Your task to perform on an android device: Do I have any events this weekend? Image 0: 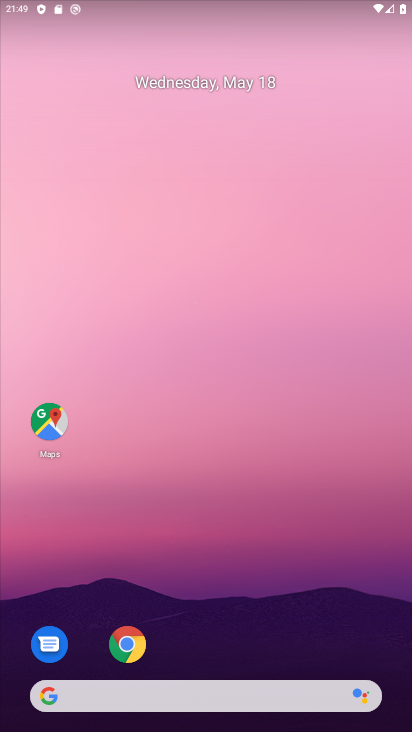
Step 0: drag from (300, 620) to (270, 145)
Your task to perform on an android device: Do I have any events this weekend? Image 1: 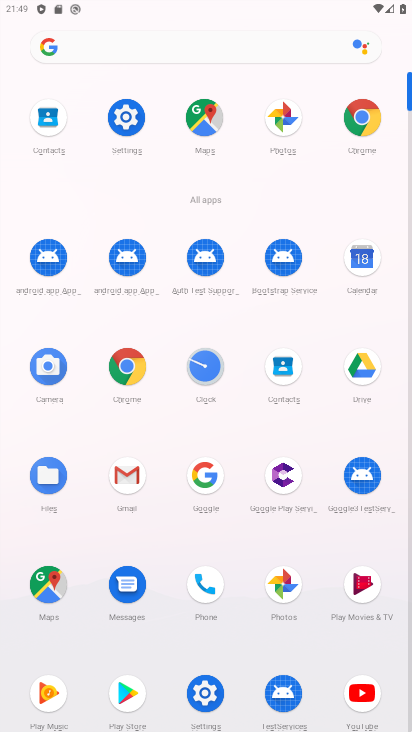
Step 1: click (144, 115)
Your task to perform on an android device: Do I have any events this weekend? Image 2: 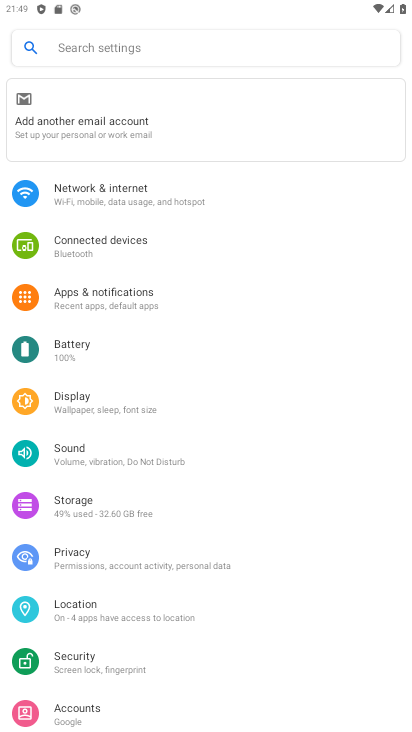
Step 2: press home button
Your task to perform on an android device: Do I have any events this weekend? Image 3: 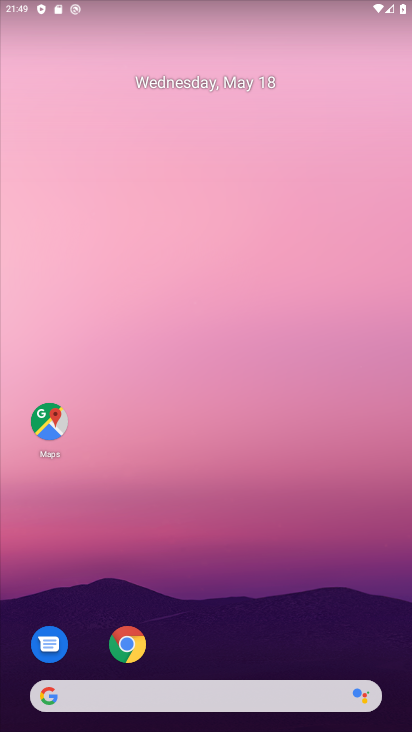
Step 3: drag from (311, 569) to (278, 101)
Your task to perform on an android device: Do I have any events this weekend? Image 4: 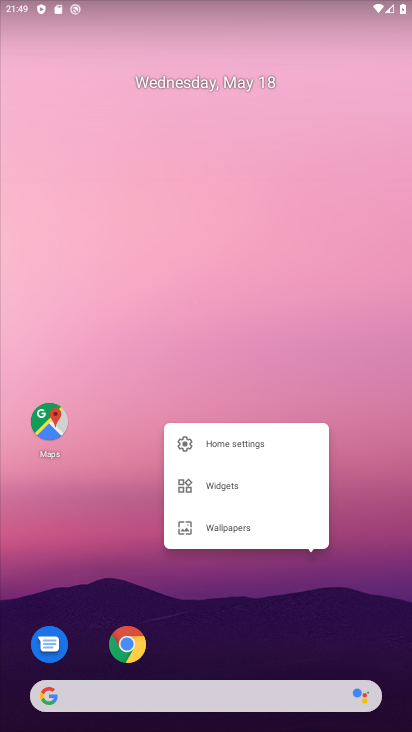
Step 4: click (335, 578)
Your task to perform on an android device: Do I have any events this weekend? Image 5: 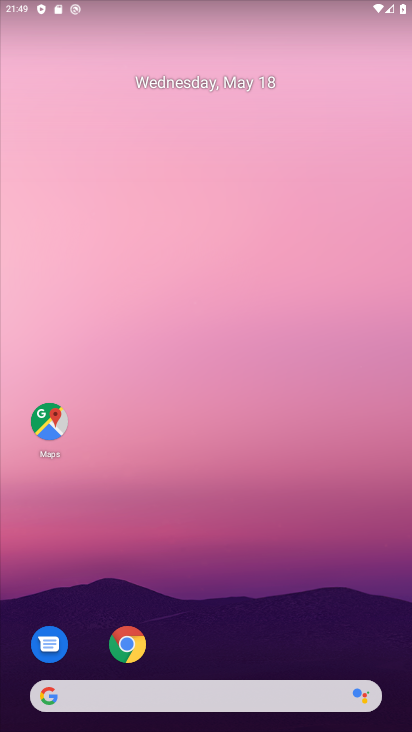
Step 5: drag from (352, 592) to (359, 92)
Your task to perform on an android device: Do I have any events this weekend? Image 6: 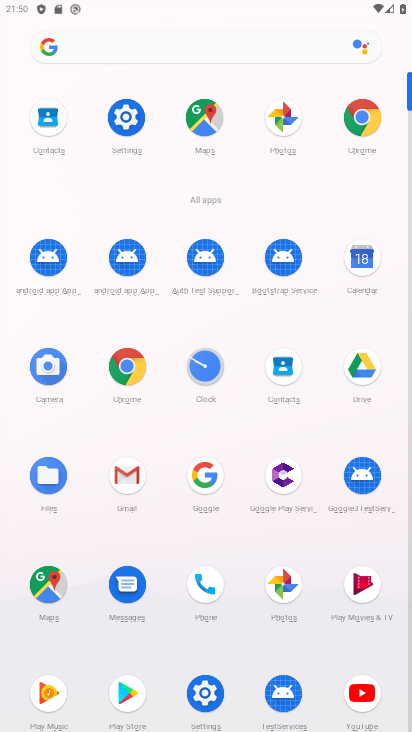
Step 6: click (368, 266)
Your task to perform on an android device: Do I have any events this weekend? Image 7: 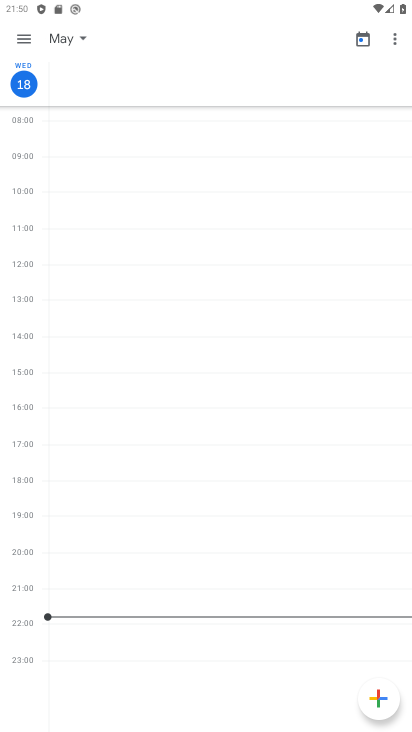
Step 7: click (15, 37)
Your task to perform on an android device: Do I have any events this weekend? Image 8: 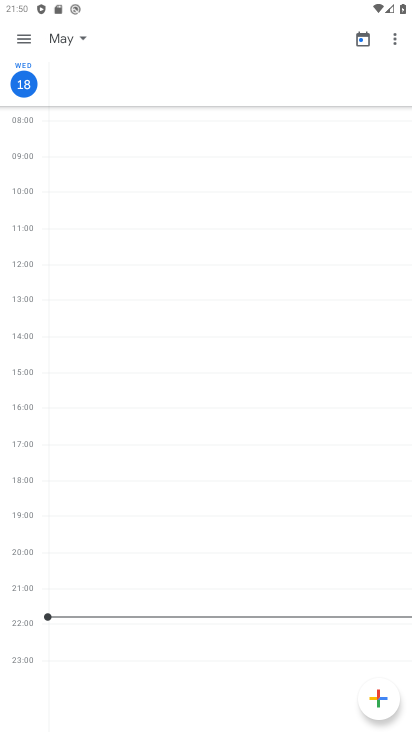
Step 8: click (24, 32)
Your task to perform on an android device: Do I have any events this weekend? Image 9: 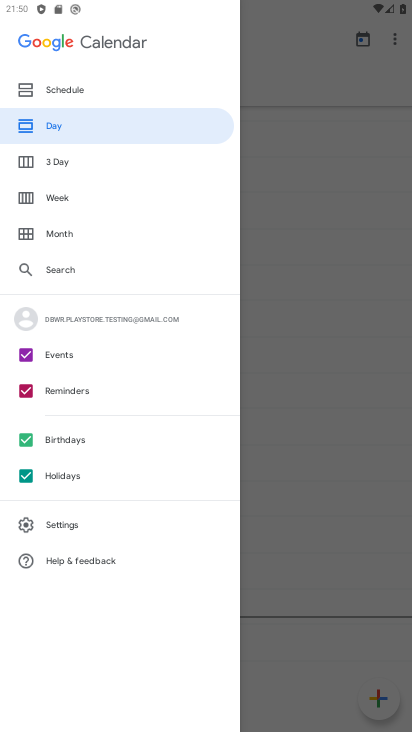
Step 9: click (53, 162)
Your task to perform on an android device: Do I have any events this weekend? Image 10: 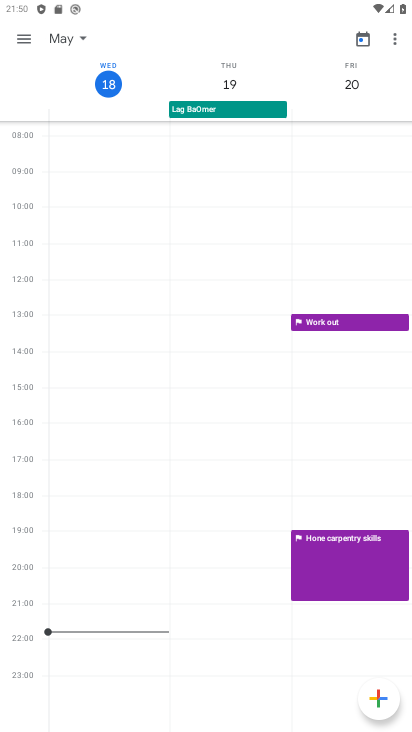
Step 10: task complete